Your task to perform on an android device: What is the news today? Image 0: 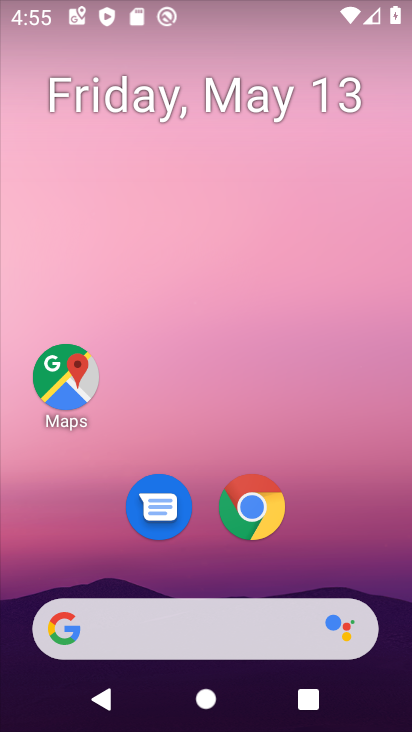
Step 0: drag from (327, 525) to (231, 17)
Your task to perform on an android device: What is the news today? Image 1: 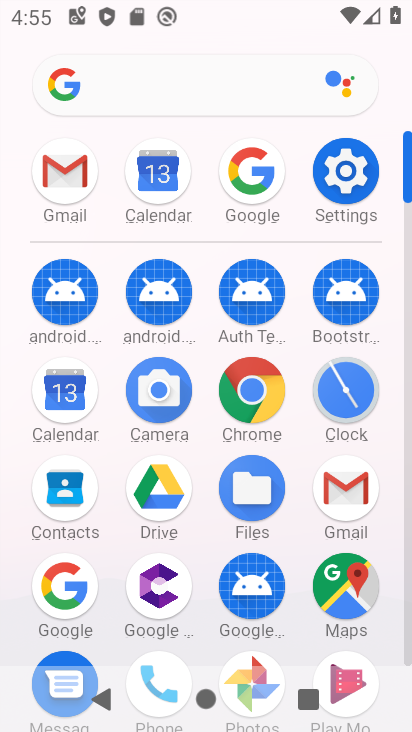
Step 1: click (57, 583)
Your task to perform on an android device: What is the news today? Image 2: 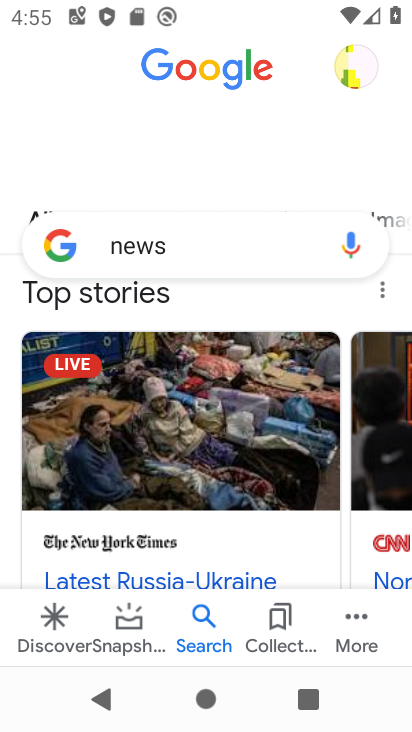
Step 2: task complete